Your task to perform on an android device: Open the web browser Image 0: 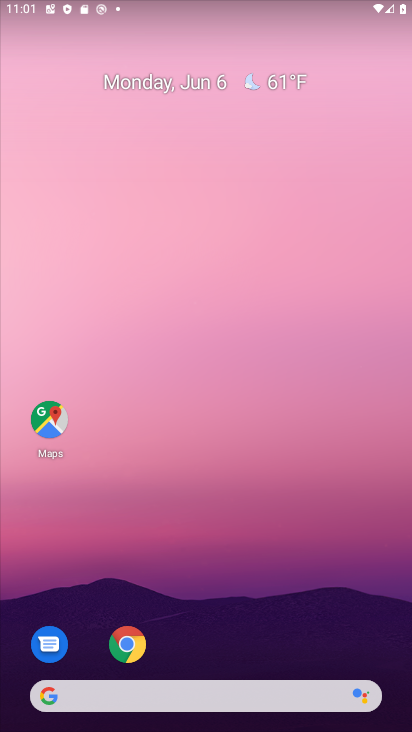
Step 0: drag from (200, 677) to (307, 95)
Your task to perform on an android device: Open the web browser Image 1: 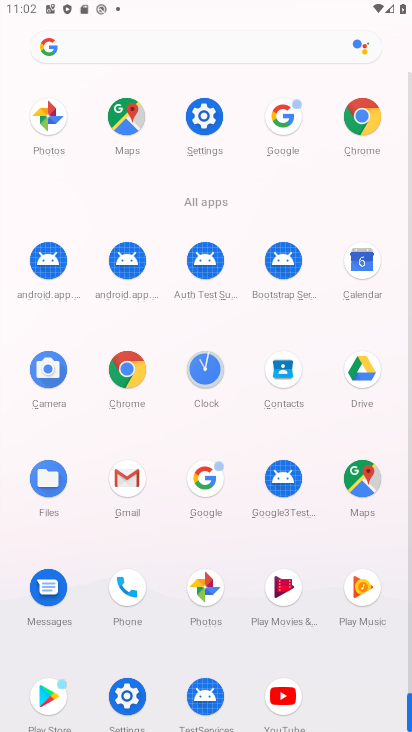
Step 1: click (358, 131)
Your task to perform on an android device: Open the web browser Image 2: 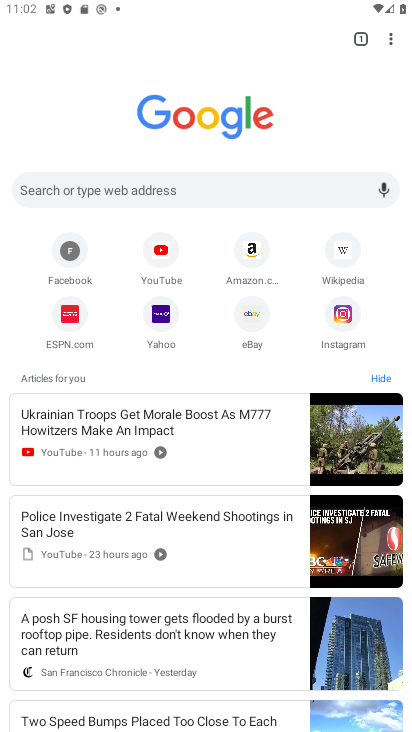
Step 2: task complete